Your task to perform on an android device: Open my contact list Image 0: 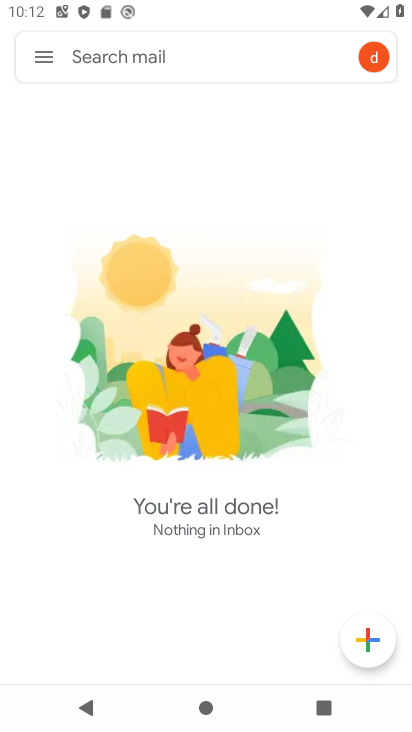
Step 0: press home button
Your task to perform on an android device: Open my contact list Image 1: 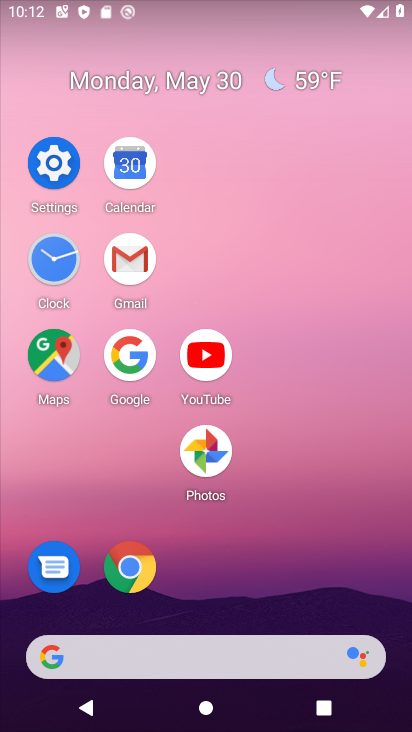
Step 1: drag from (321, 558) to (356, 66)
Your task to perform on an android device: Open my contact list Image 2: 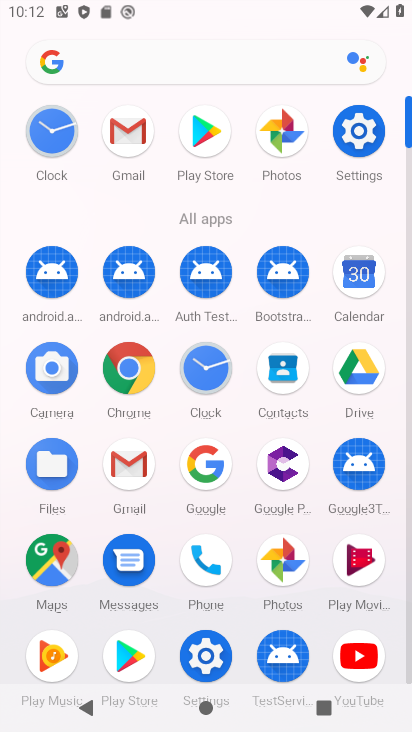
Step 2: click (287, 388)
Your task to perform on an android device: Open my contact list Image 3: 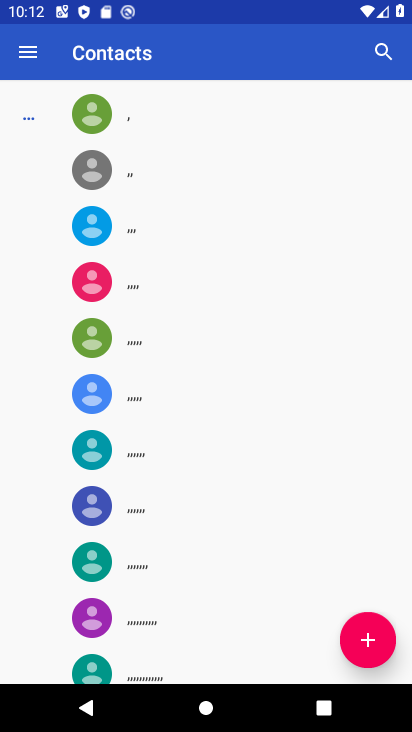
Step 3: task complete